Your task to perform on an android device: Show the shopping cart on walmart. Image 0: 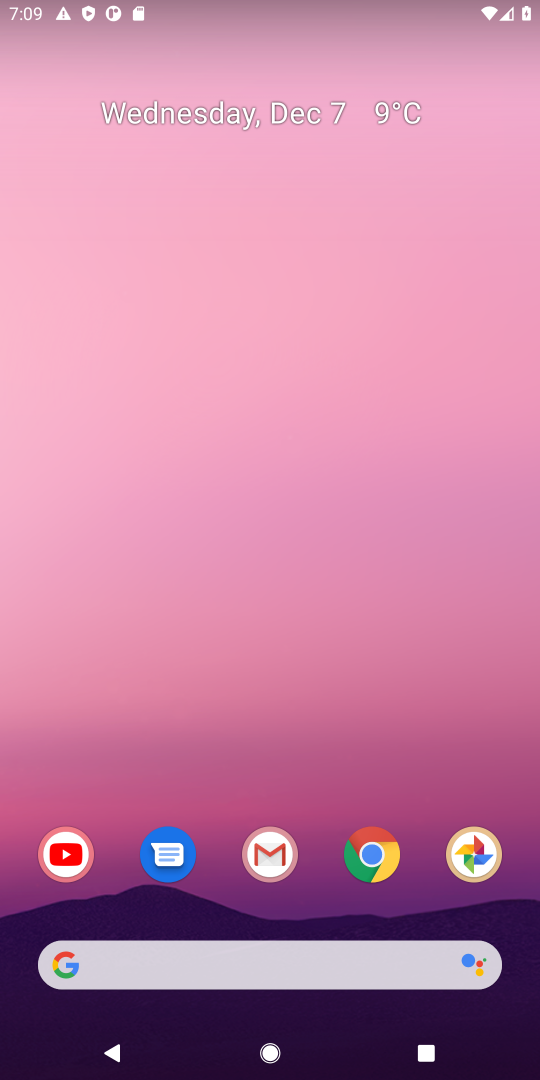
Step 0: click (325, 959)
Your task to perform on an android device: Show the shopping cart on walmart. Image 1: 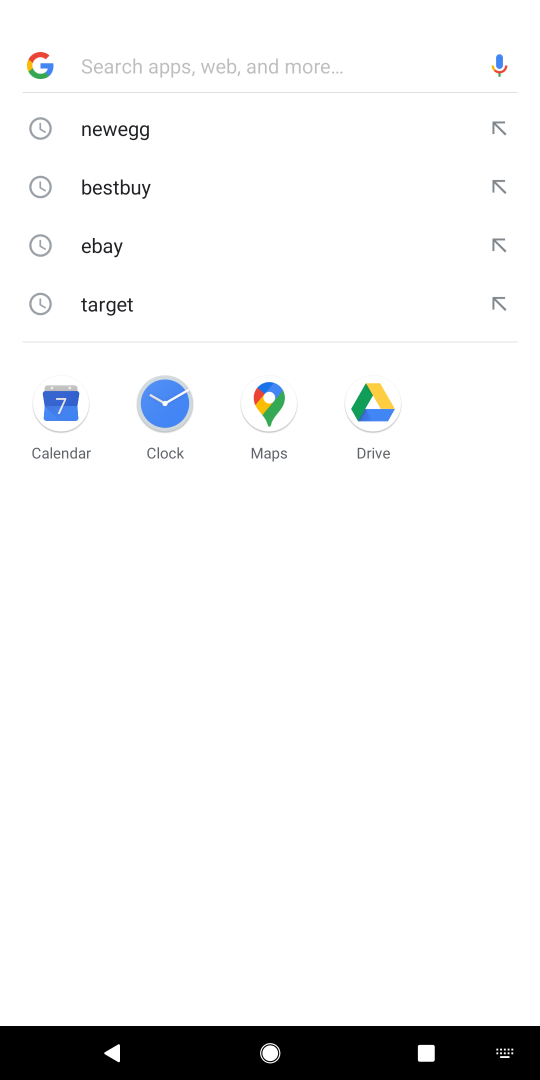
Step 1: type "walmart"
Your task to perform on an android device: Show the shopping cart on walmart. Image 2: 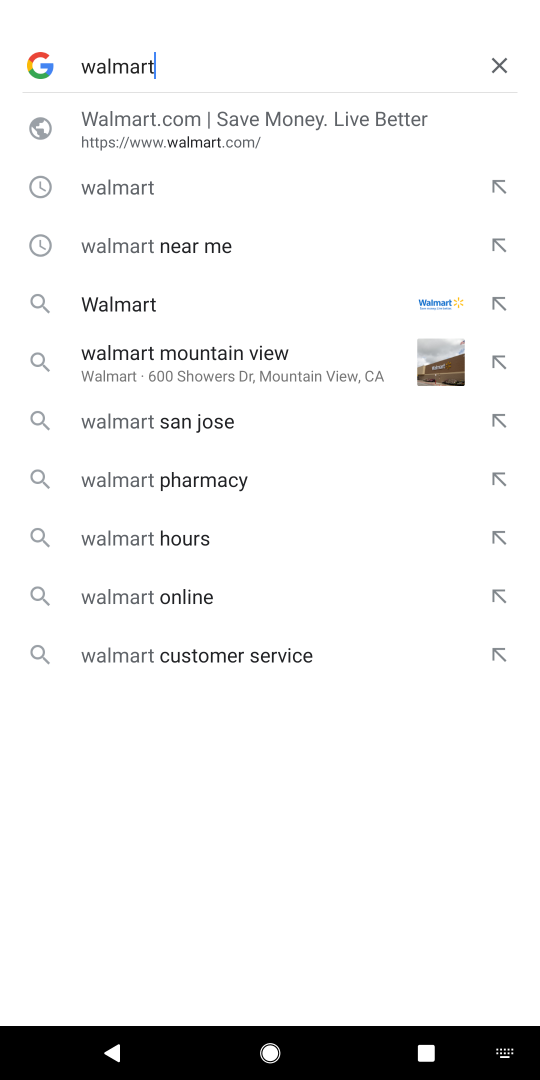
Step 2: click (123, 166)
Your task to perform on an android device: Show the shopping cart on walmart. Image 3: 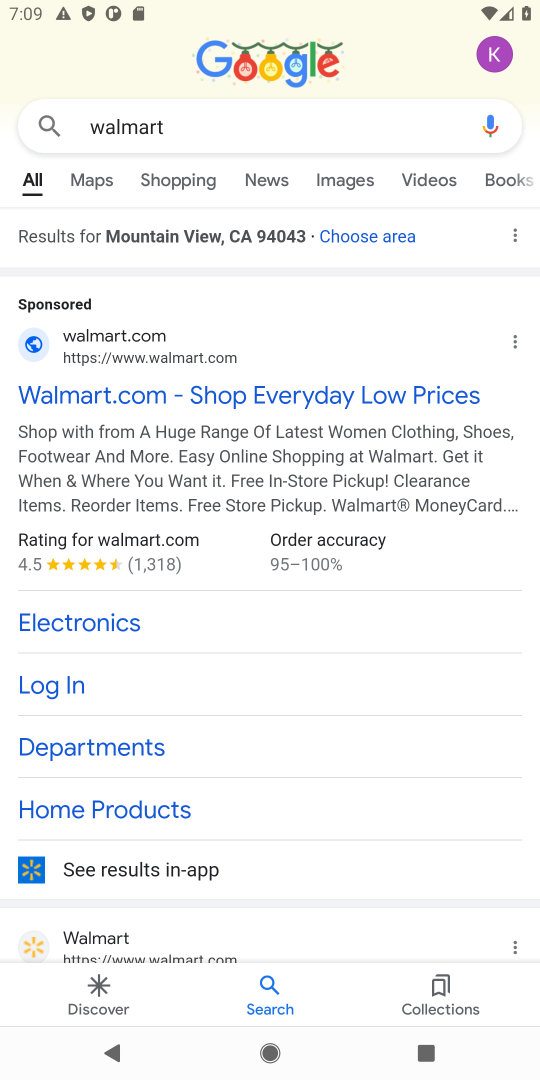
Step 3: click (192, 400)
Your task to perform on an android device: Show the shopping cart on walmart. Image 4: 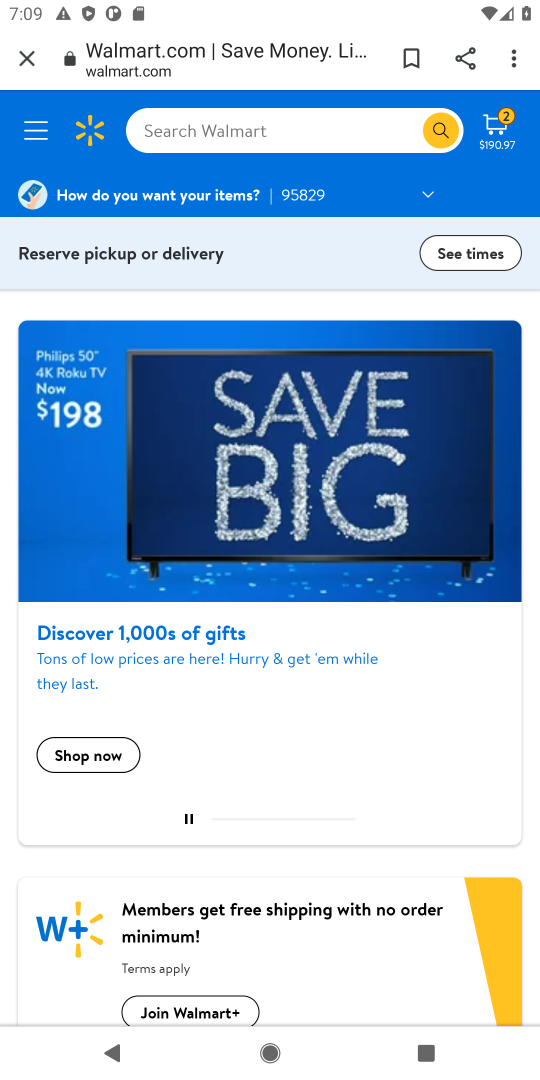
Step 4: click (280, 143)
Your task to perform on an android device: Show the shopping cart on walmart. Image 5: 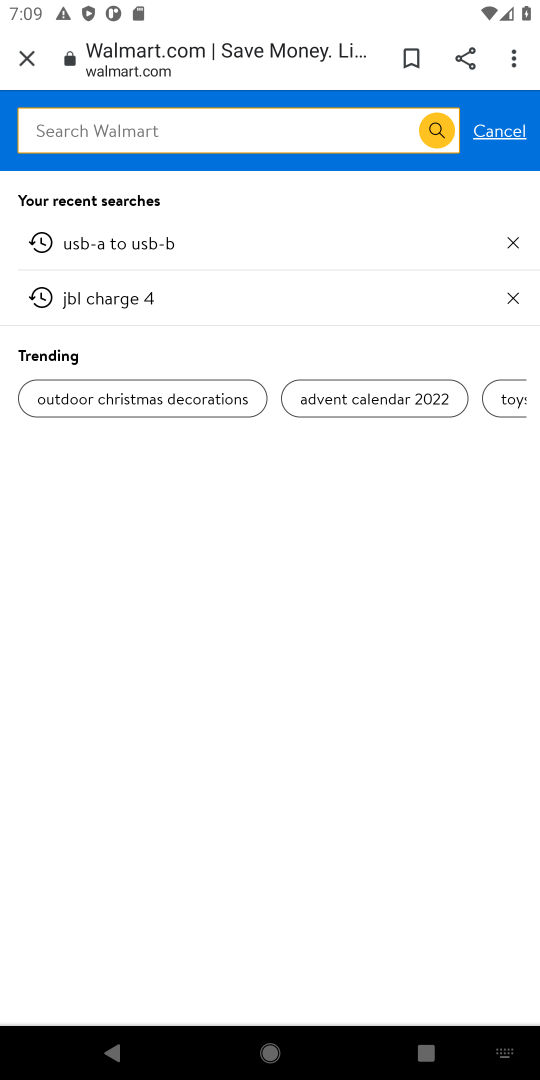
Step 5: task complete